Your task to perform on an android device: check storage Image 0: 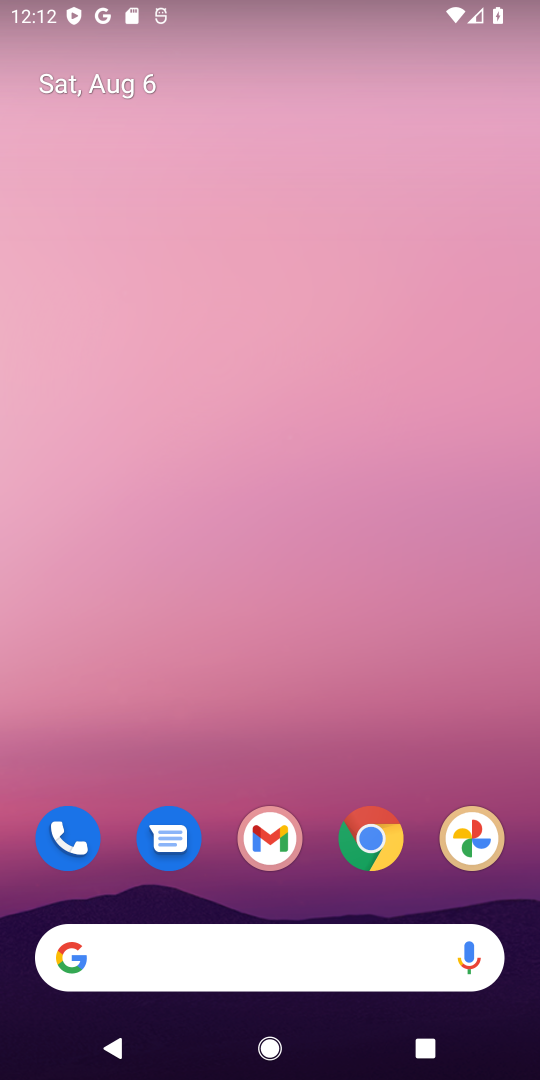
Step 0: drag from (286, 762) to (329, 40)
Your task to perform on an android device: check storage Image 1: 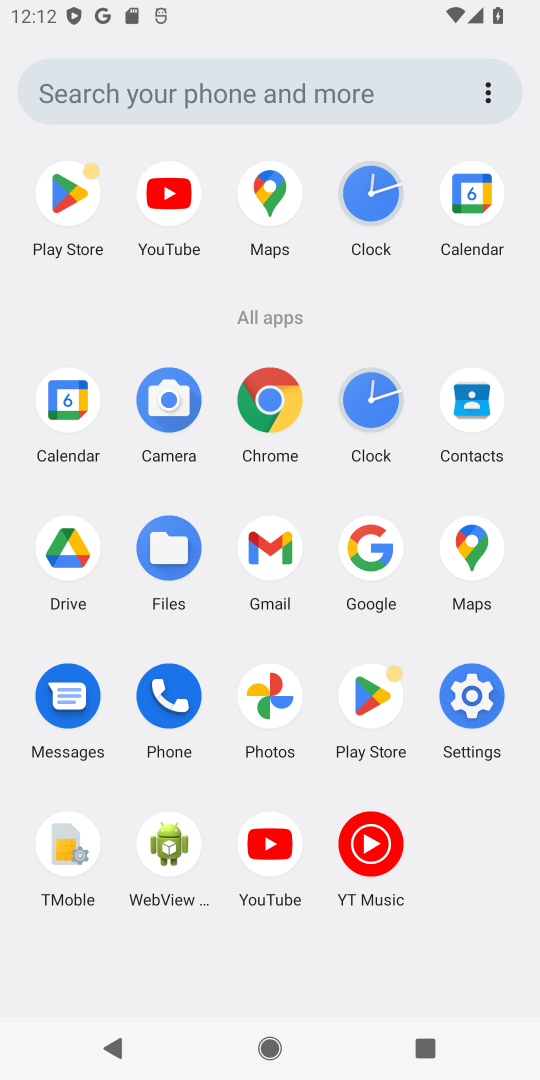
Step 1: click (480, 685)
Your task to perform on an android device: check storage Image 2: 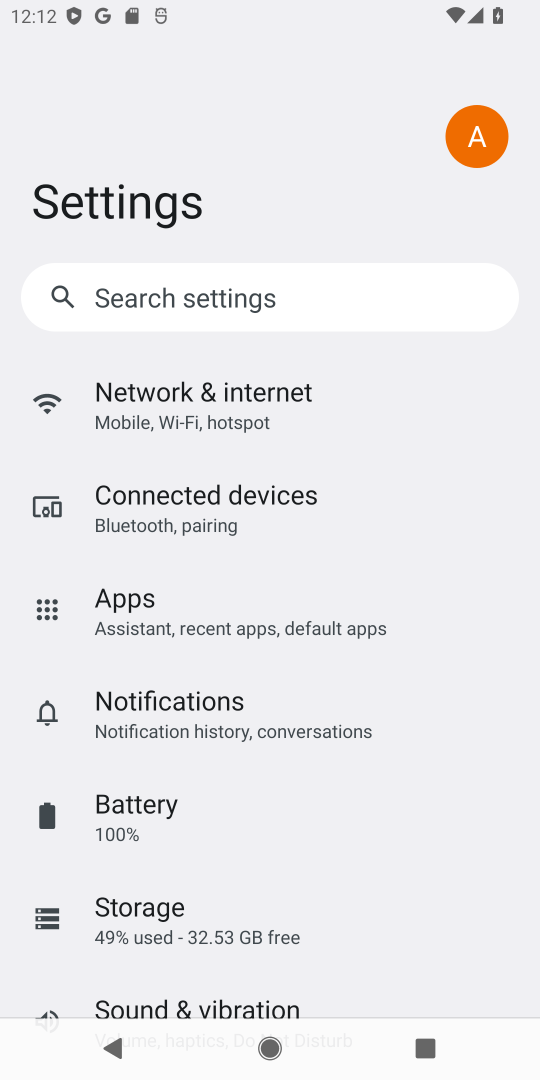
Step 2: click (162, 909)
Your task to perform on an android device: check storage Image 3: 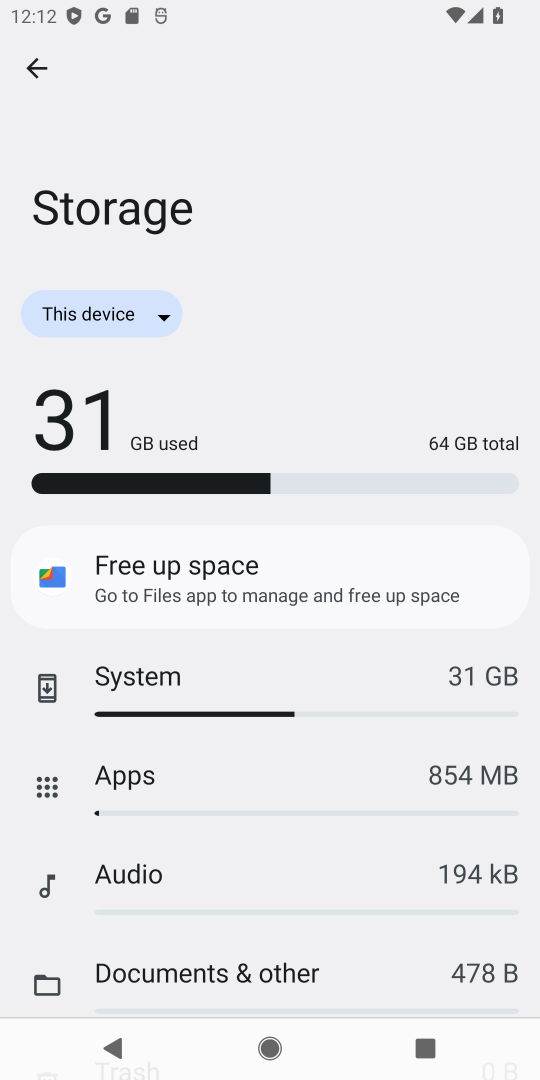
Step 3: task complete